Your task to perform on an android device: Show me productivity apps on the Play Store Image 0: 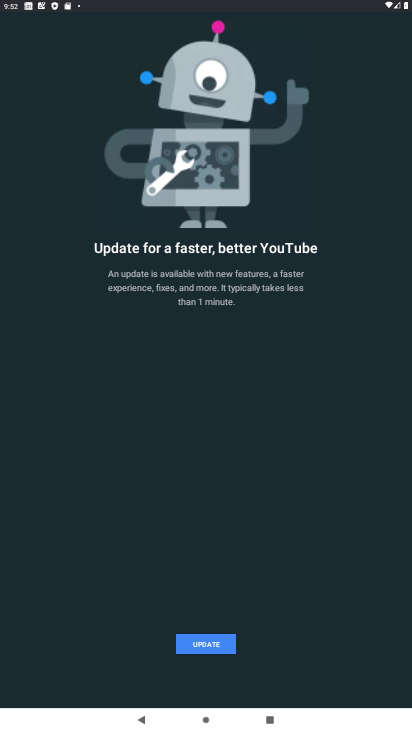
Step 0: press home button
Your task to perform on an android device: Show me productivity apps on the Play Store Image 1: 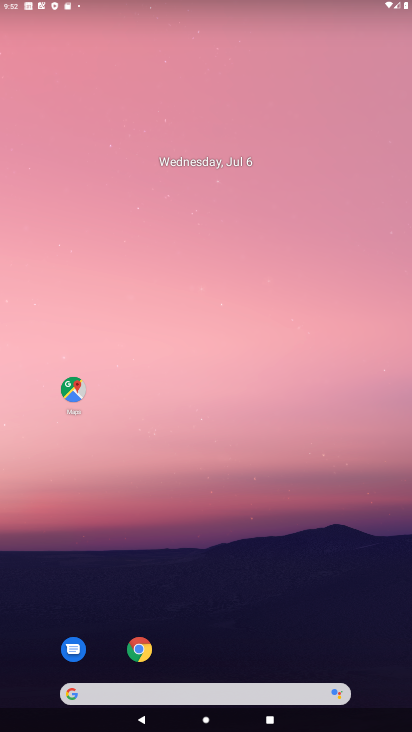
Step 1: click (408, 562)
Your task to perform on an android device: Show me productivity apps on the Play Store Image 2: 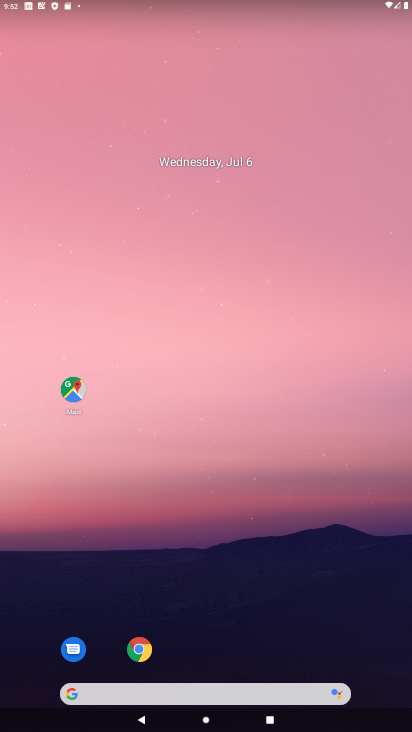
Step 2: drag from (192, 692) to (270, 144)
Your task to perform on an android device: Show me productivity apps on the Play Store Image 3: 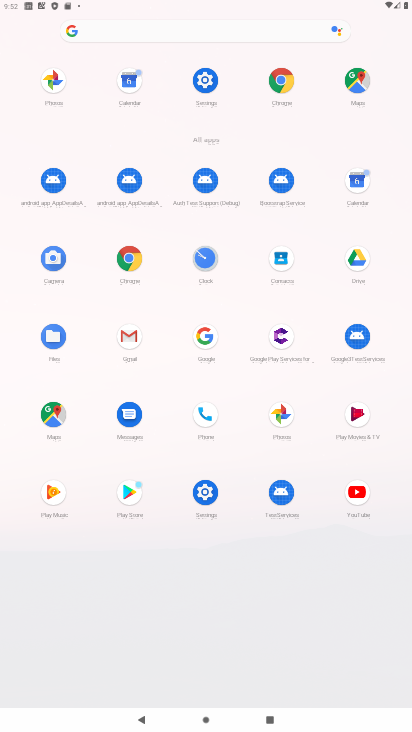
Step 3: click (121, 495)
Your task to perform on an android device: Show me productivity apps on the Play Store Image 4: 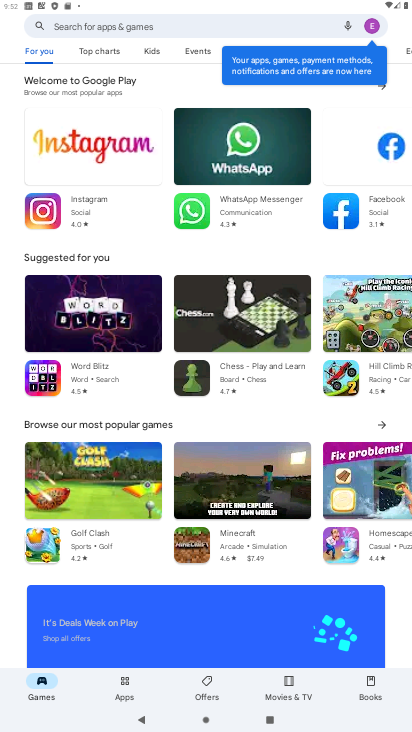
Step 4: click (125, 686)
Your task to perform on an android device: Show me productivity apps on the Play Store Image 5: 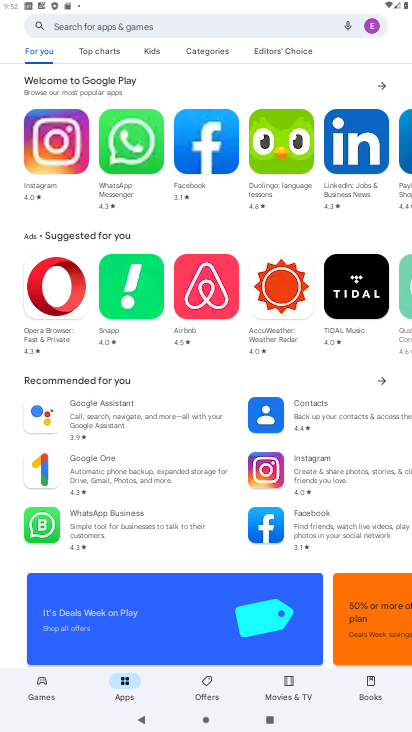
Step 5: click (202, 53)
Your task to perform on an android device: Show me productivity apps on the Play Store Image 6: 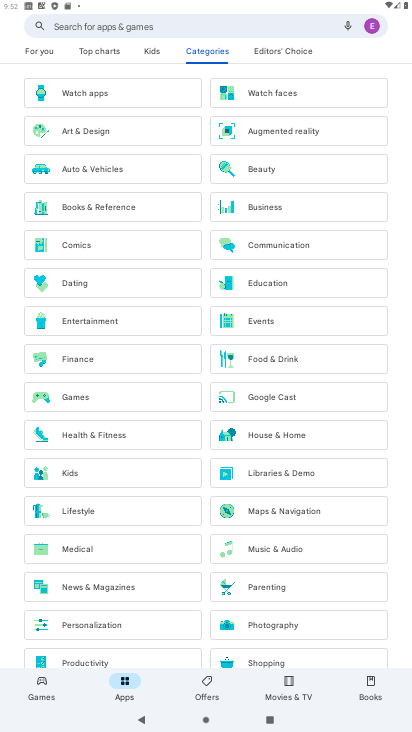
Step 6: click (144, 659)
Your task to perform on an android device: Show me productivity apps on the Play Store Image 7: 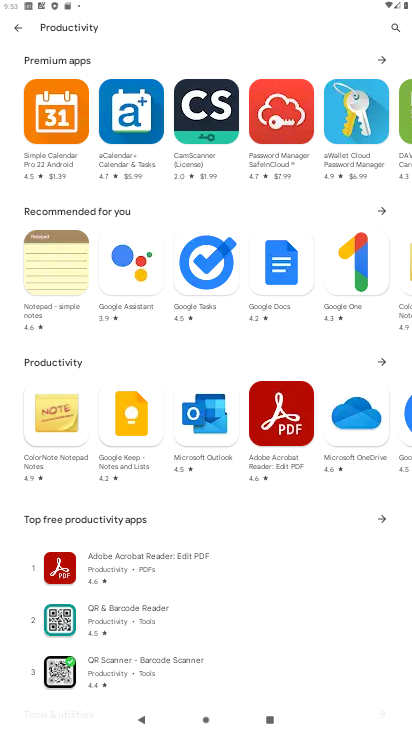
Step 7: task complete